Your task to perform on an android device: check google app version Image 0: 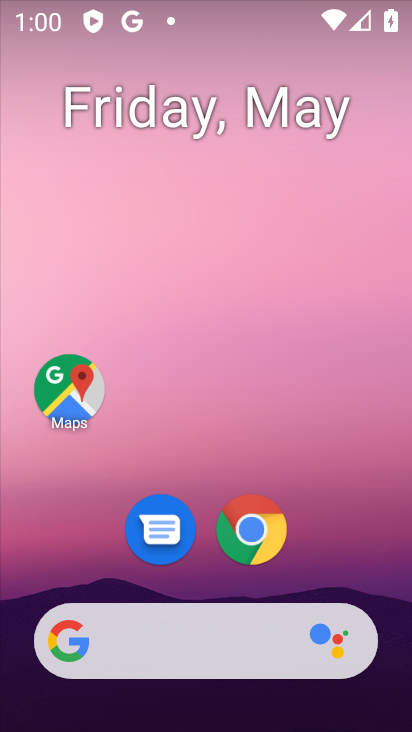
Step 0: drag from (81, 577) to (220, 129)
Your task to perform on an android device: check google app version Image 1: 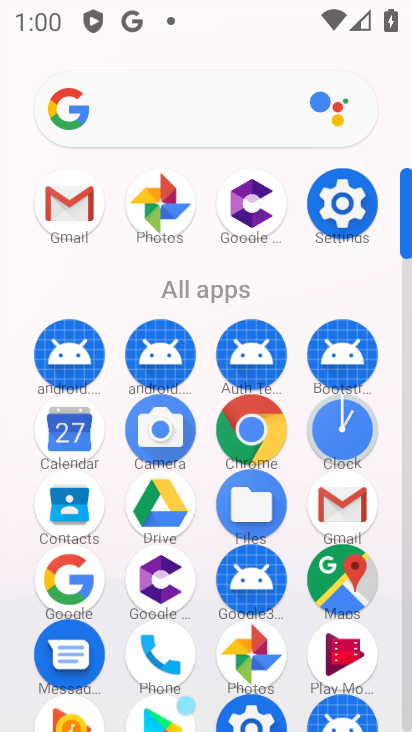
Step 1: drag from (159, 559) to (241, 341)
Your task to perform on an android device: check google app version Image 2: 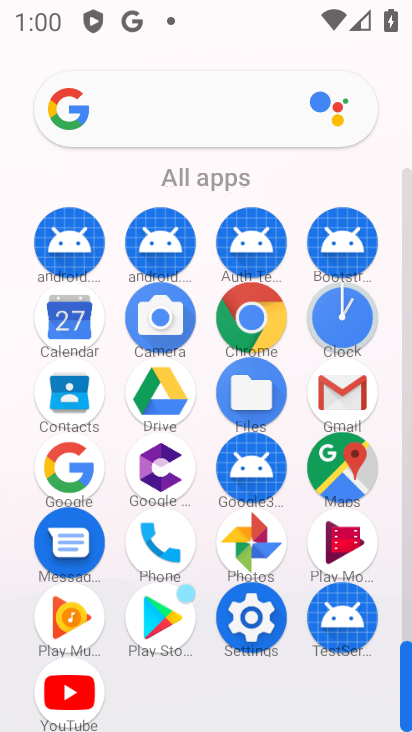
Step 2: click (248, 604)
Your task to perform on an android device: check google app version Image 3: 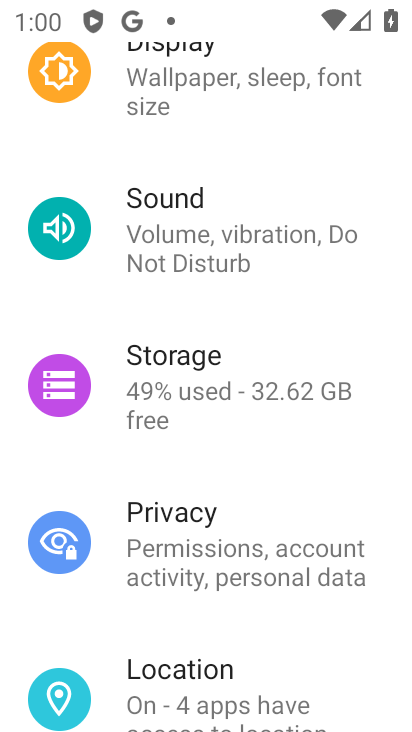
Step 3: drag from (280, 224) to (280, 527)
Your task to perform on an android device: check google app version Image 4: 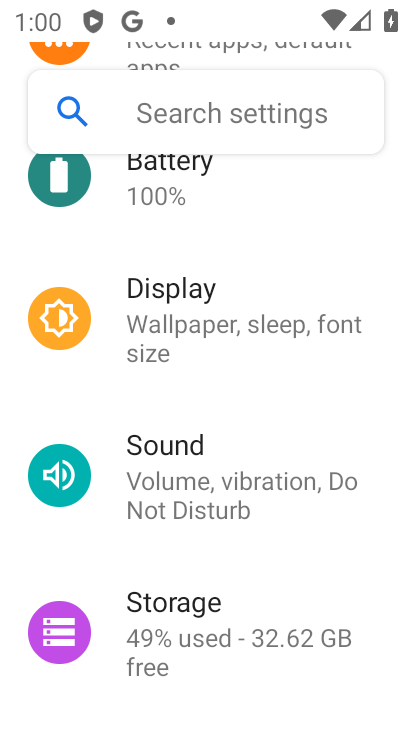
Step 4: drag from (308, 197) to (294, 633)
Your task to perform on an android device: check google app version Image 5: 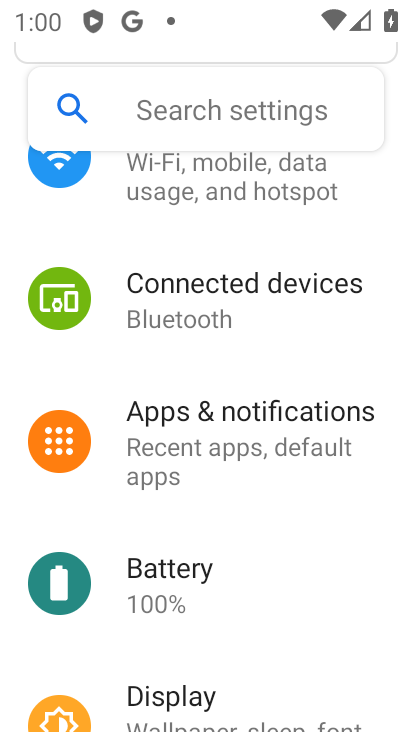
Step 5: click (282, 447)
Your task to perform on an android device: check google app version Image 6: 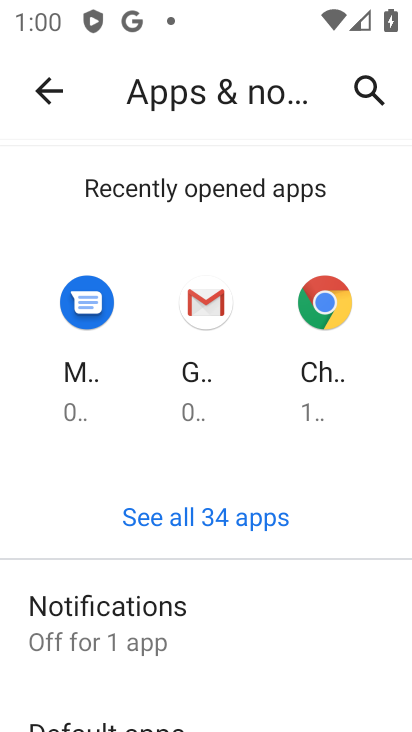
Step 6: drag from (279, 575) to (386, 288)
Your task to perform on an android device: check google app version Image 7: 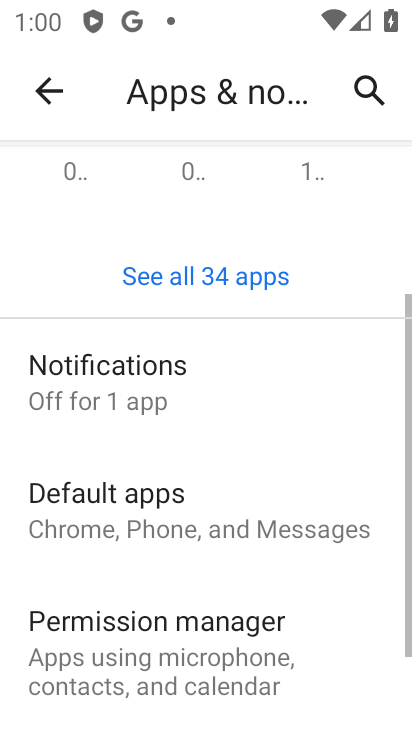
Step 7: click (206, 265)
Your task to perform on an android device: check google app version Image 8: 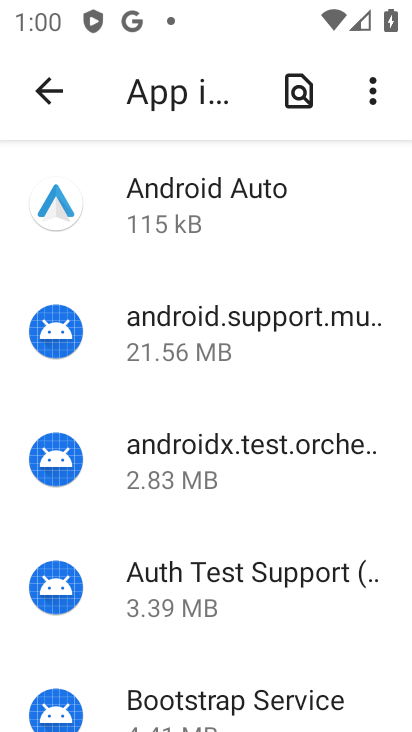
Step 8: drag from (143, 610) to (321, 95)
Your task to perform on an android device: check google app version Image 9: 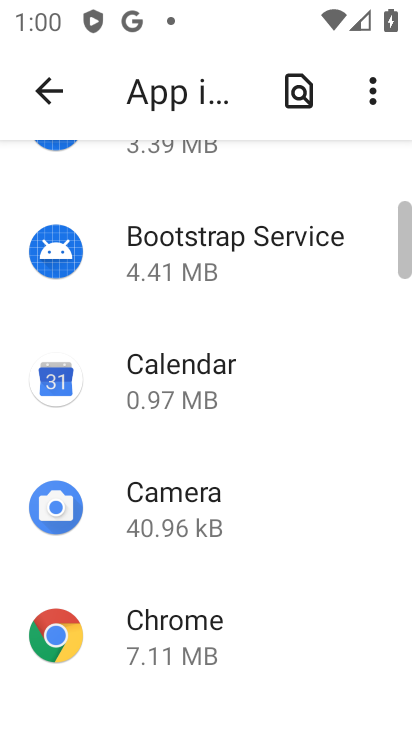
Step 9: drag from (178, 632) to (394, 100)
Your task to perform on an android device: check google app version Image 10: 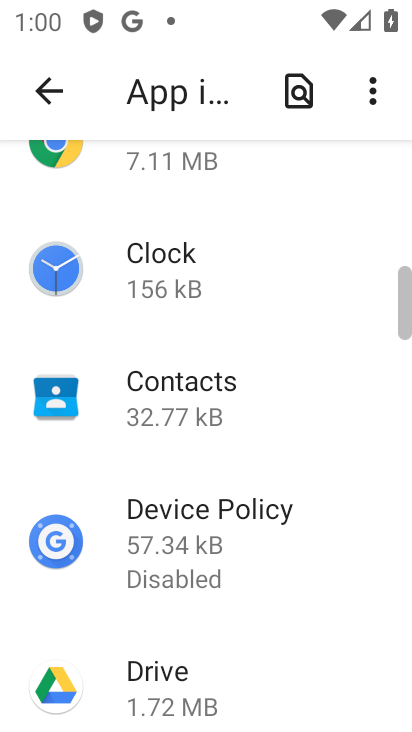
Step 10: drag from (24, 645) to (263, 153)
Your task to perform on an android device: check google app version Image 11: 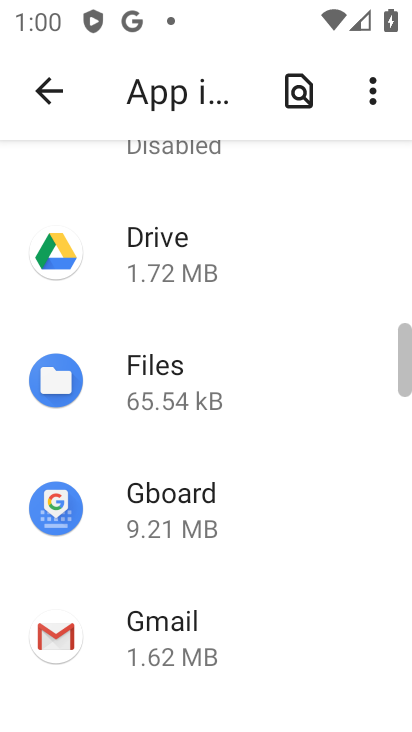
Step 11: drag from (201, 489) to (253, 370)
Your task to perform on an android device: check google app version Image 12: 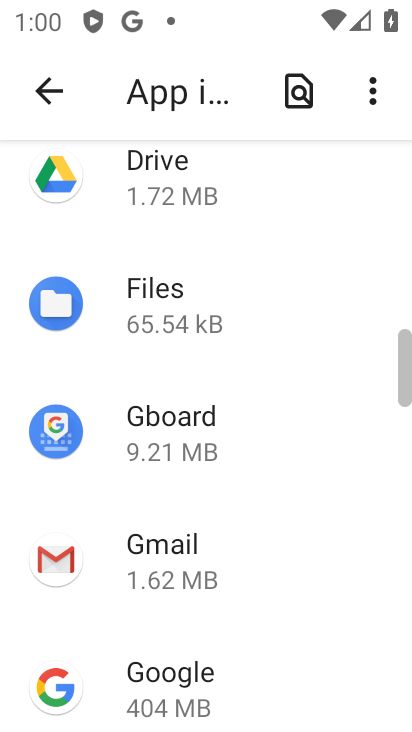
Step 12: click (171, 671)
Your task to perform on an android device: check google app version Image 13: 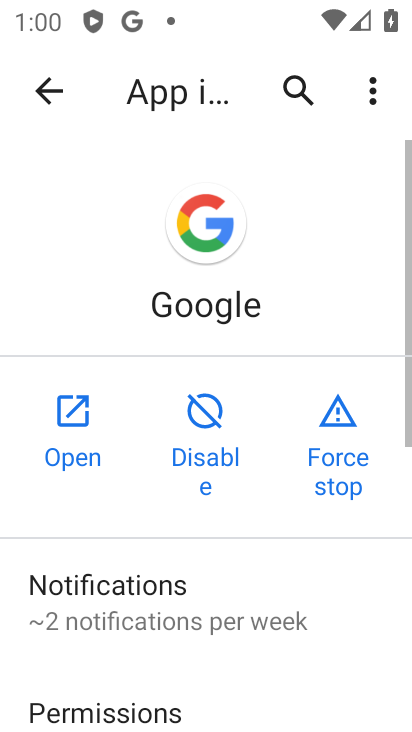
Step 13: drag from (142, 685) to (393, 68)
Your task to perform on an android device: check google app version Image 14: 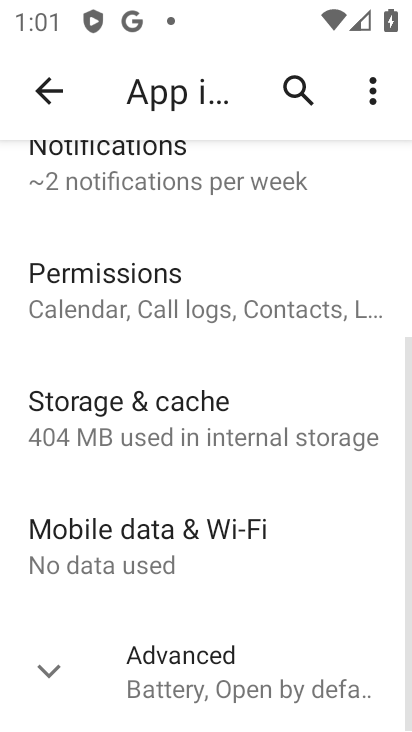
Step 14: click (204, 681)
Your task to perform on an android device: check google app version Image 15: 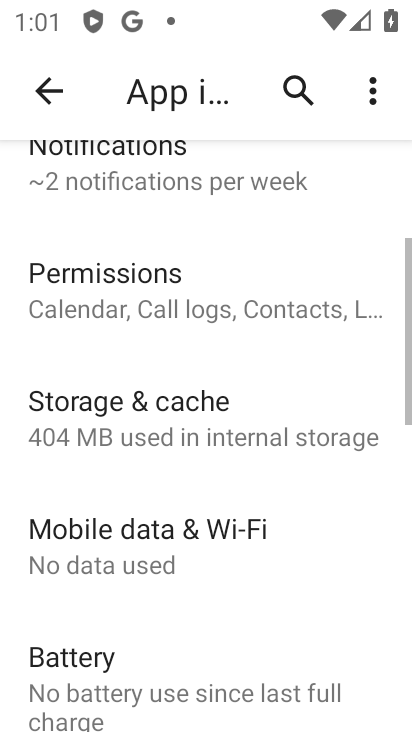
Step 15: task complete